Your task to perform on an android device: Show me popular videos on Youtube Image 0: 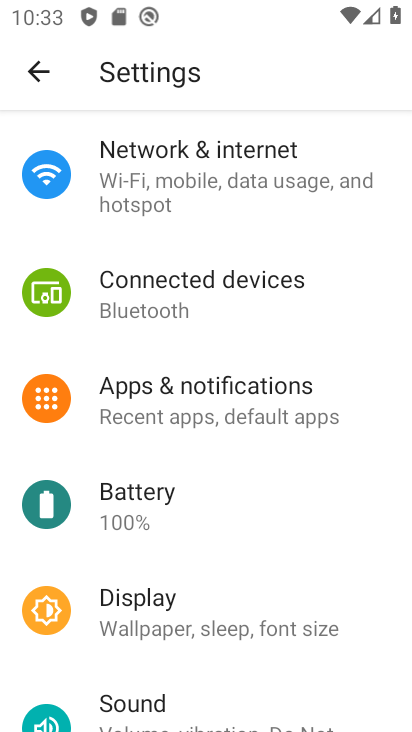
Step 0: press home button
Your task to perform on an android device: Show me popular videos on Youtube Image 1: 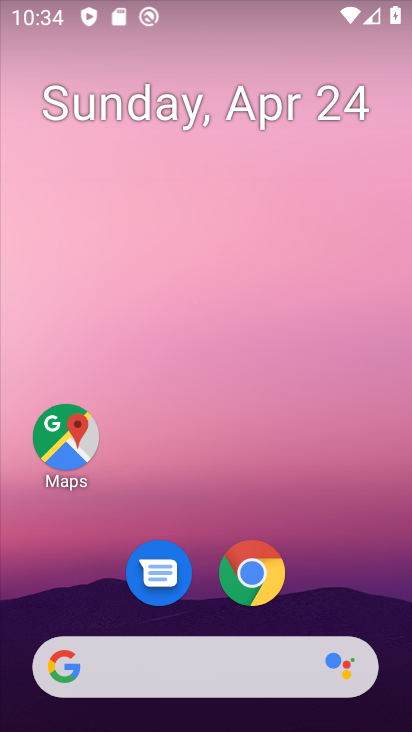
Step 1: drag from (297, 597) to (247, 12)
Your task to perform on an android device: Show me popular videos on Youtube Image 2: 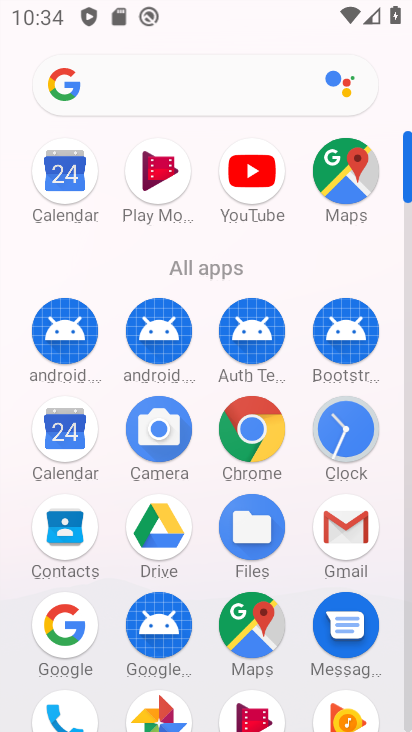
Step 2: click (243, 173)
Your task to perform on an android device: Show me popular videos on Youtube Image 3: 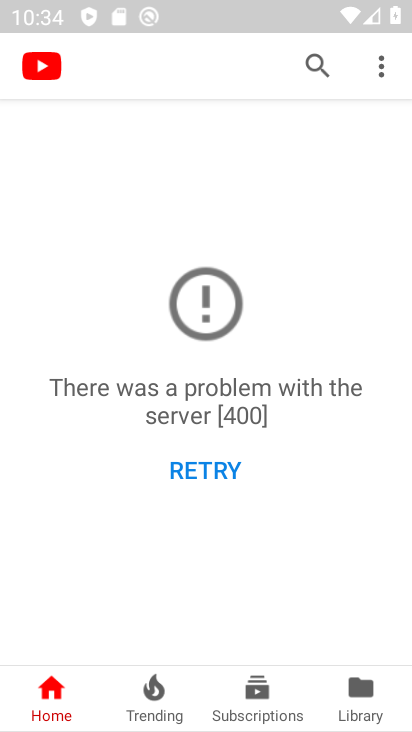
Step 3: click (157, 694)
Your task to perform on an android device: Show me popular videos on Youtube Image 4: 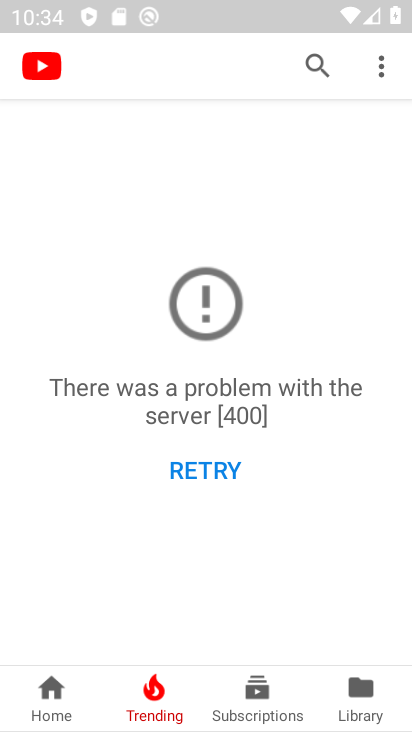
Step 4: click (202, 469)
Your task to perform on an android device: Show me popular videos on Youtube Image 5: 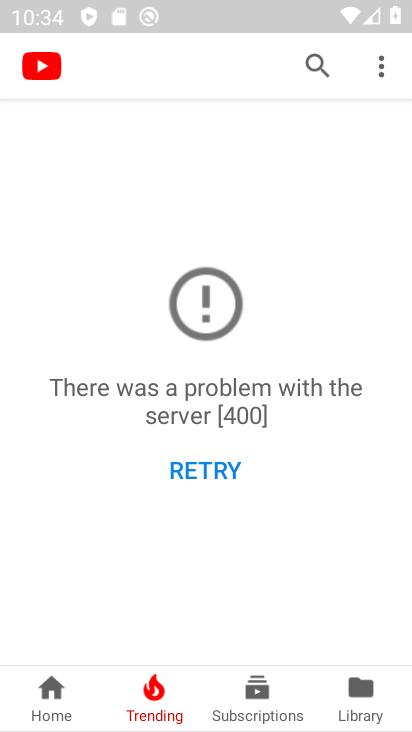
Step 5: click (202, 469)
Your task to perform on an android device: Show me popular videos on Youtube Image 6: 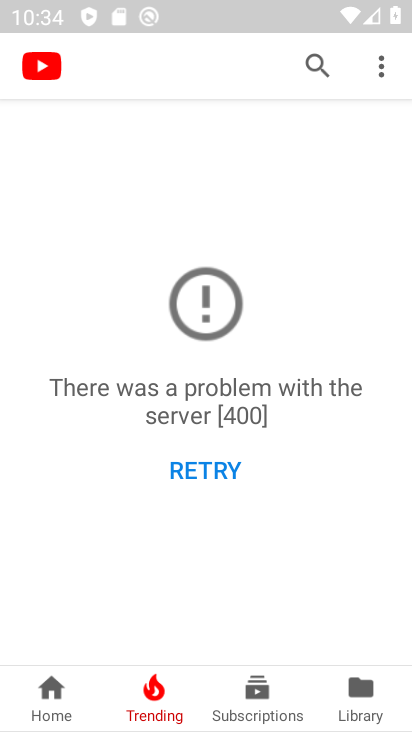
Step 6: task complete